Your task to perform on an android device: turn off airplane mode Image 0: 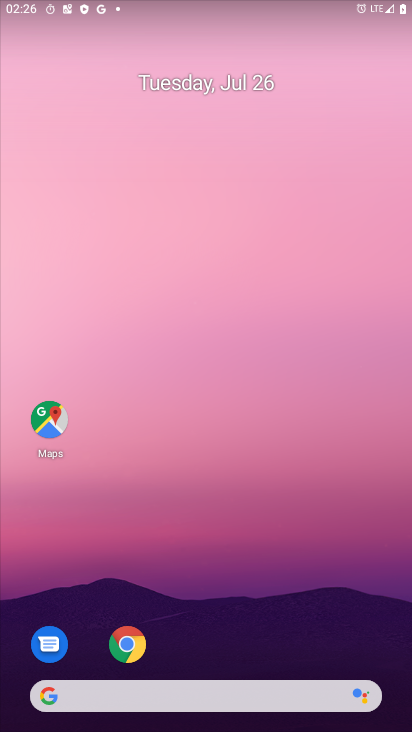
Step 0: drag from (245, 608) to (255, 23)
Your task to perform on an android device: turn off airplane mode Image 1: 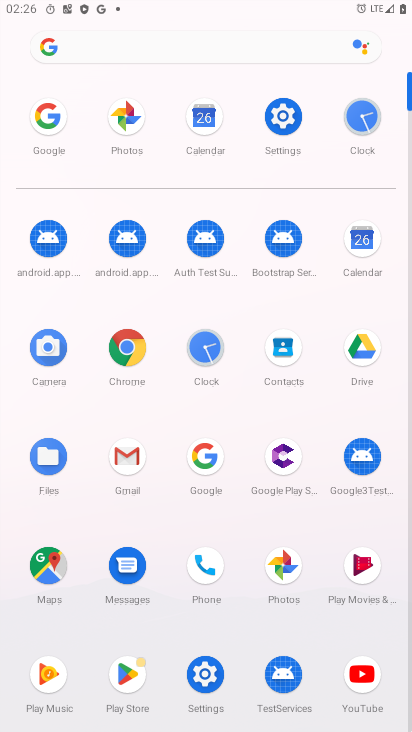
Step 1: click (287, 120)
Your task to perform on an android device: turn off airplane mode Image 2: 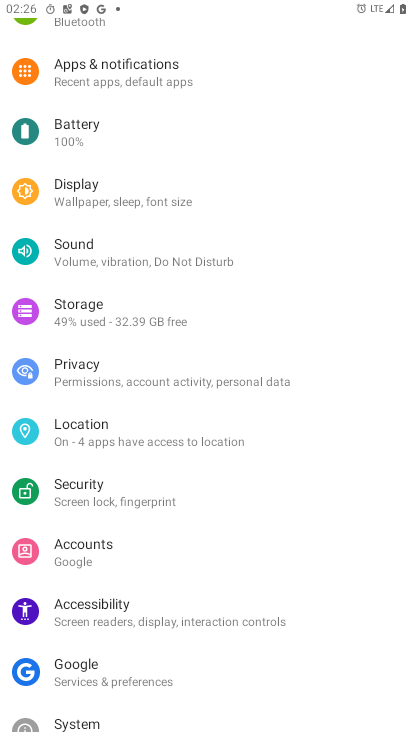
Step 2: drag from (243, 133) to (235, 475)
Your task to perform on an android device: turn off airplane mode Image 3: 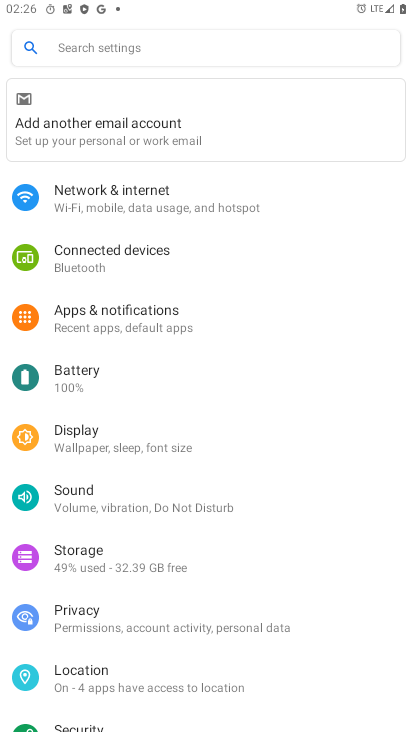
Step 3: click (130, 201)
Your task to perform on an android device: turn off airplane mode Image 4: 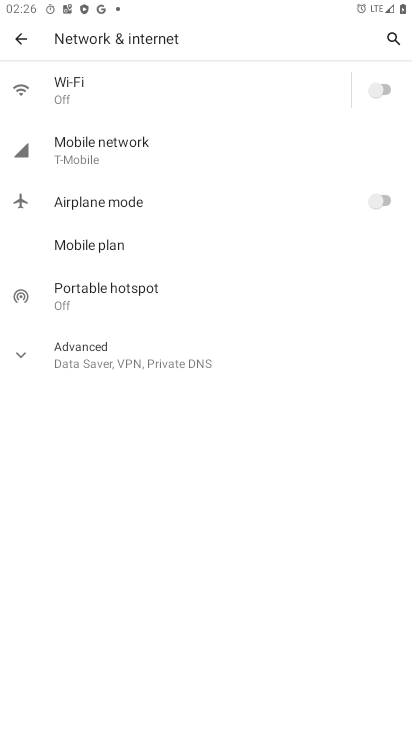
Step 4: task complete